Your task to perform on an android device: open app "Reddit" (install if not already installed) Image 0: 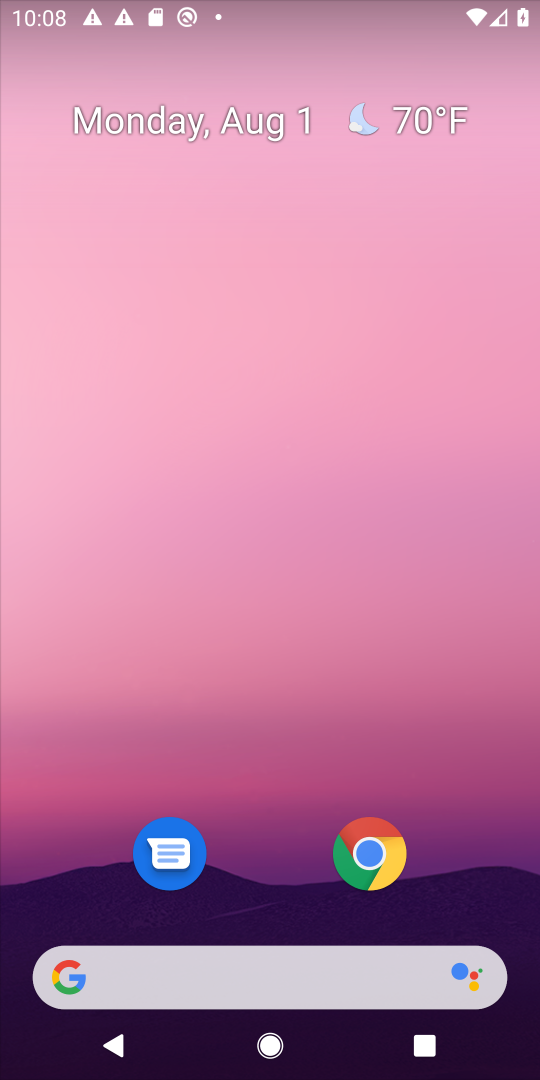
Step 0: drag from (257, 911) to (391, 154)
Your task to perform on an android device: open app "Reddit" (install if not already installed) Image 1: 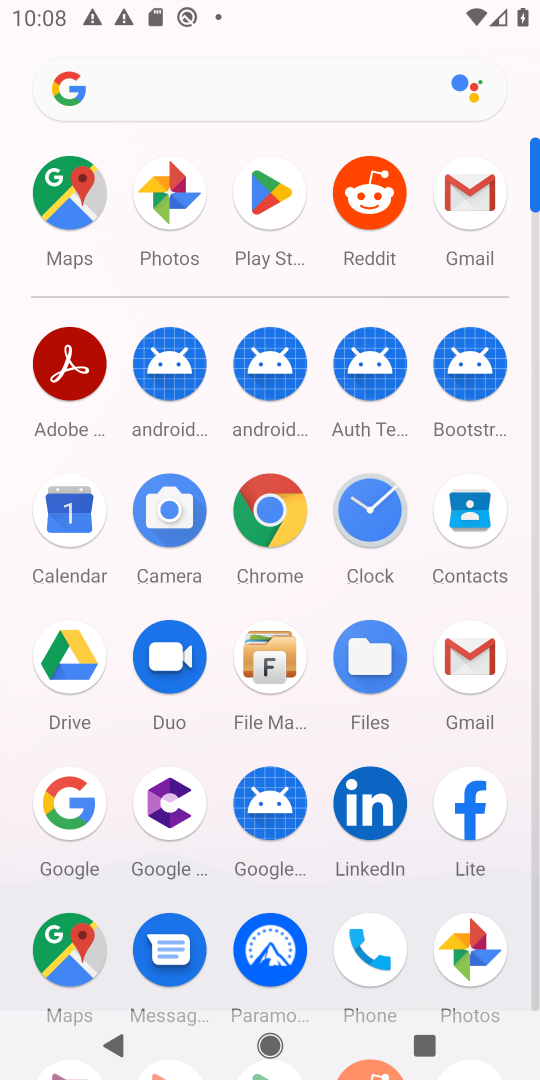
Step 1: click (255, 189)
Your task to perform on an android device: open app "Reddit" (install if not already installed) Image 2: 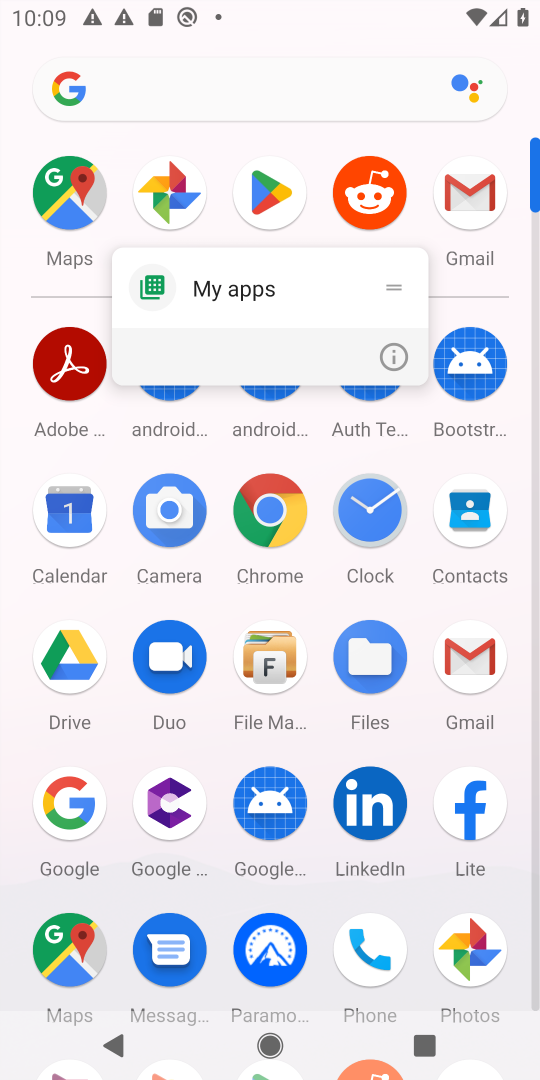
Step 2: click (403, 354)
Your task to perform on an android device: open app "Reddit" (install if not already installed) Image 3: 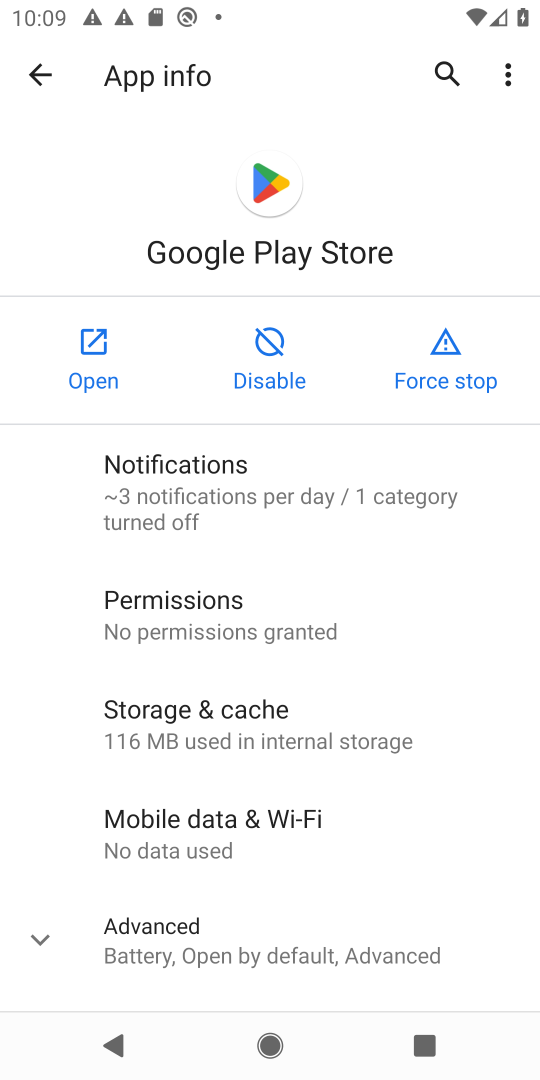
Step 3: click (87, 339)
Your task to perform on an android device: open app "Reddit" (install if not already installed) Image 4: 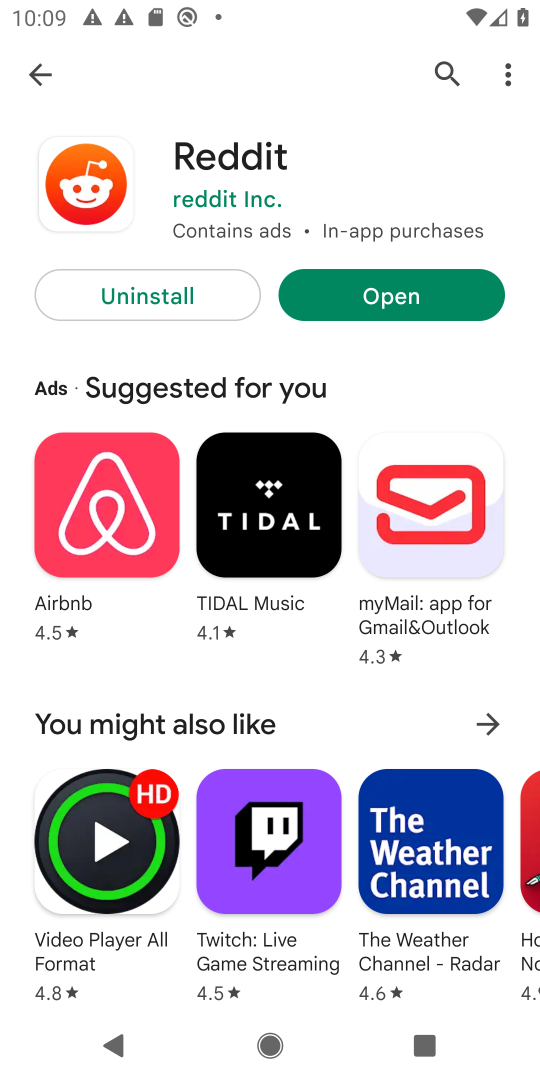
Step 4: click (440, 72)
Your task to perform on an android device: open app "Reddit" (install if not already installed) Image 5: 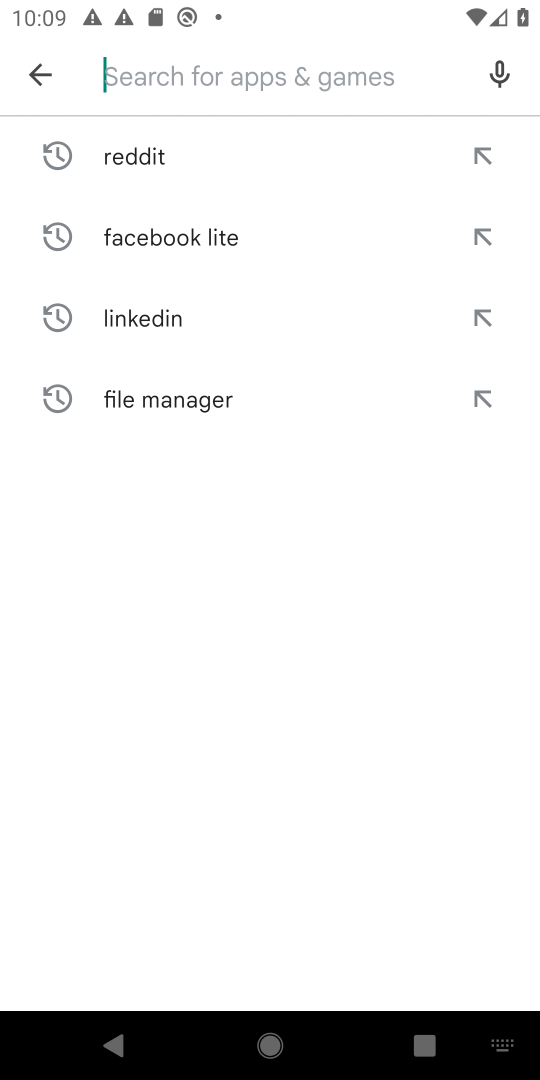
Step 5: click (55, 72)
Your task to perform on an android device: open app "Reddit" (install if not already installed) Image 6: 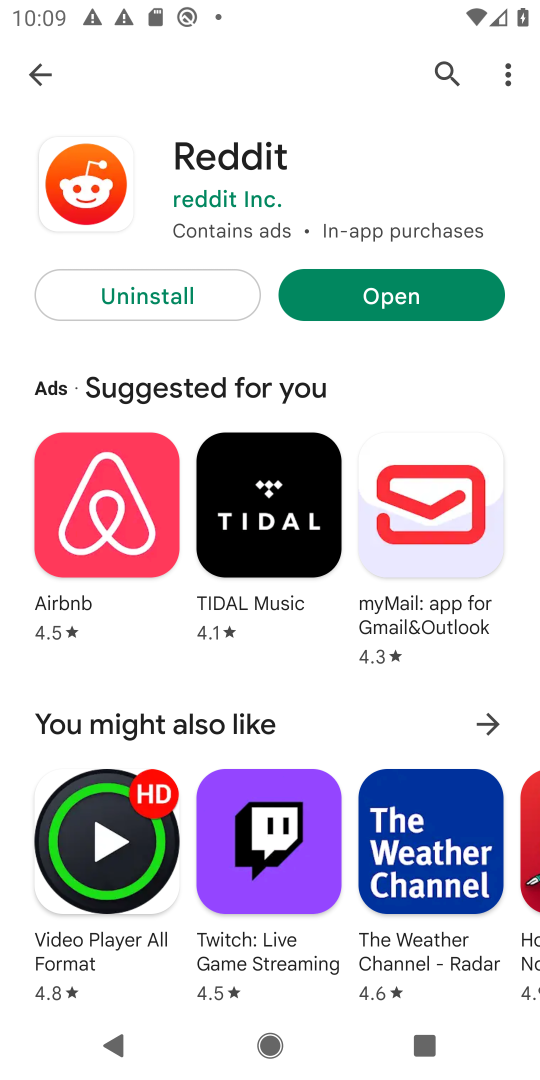
Step 6: click (387, 298)
Your task to perform on an android device: open app "Reddit" (install if not already installed) Image 7: 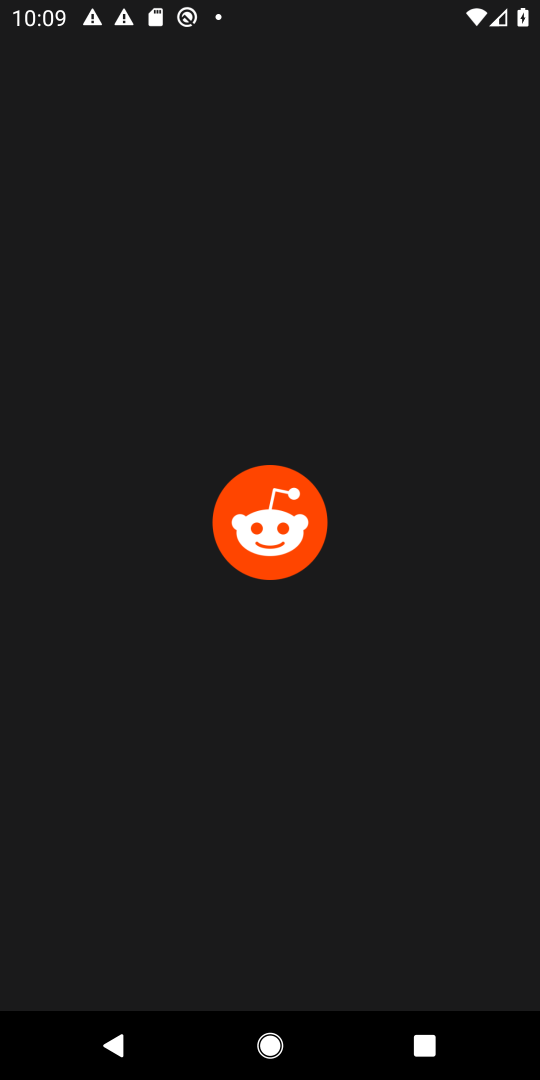
Step 7: task complete